Your task to perform on an android device: Search for Mexican restaurants on Maps Image 0: 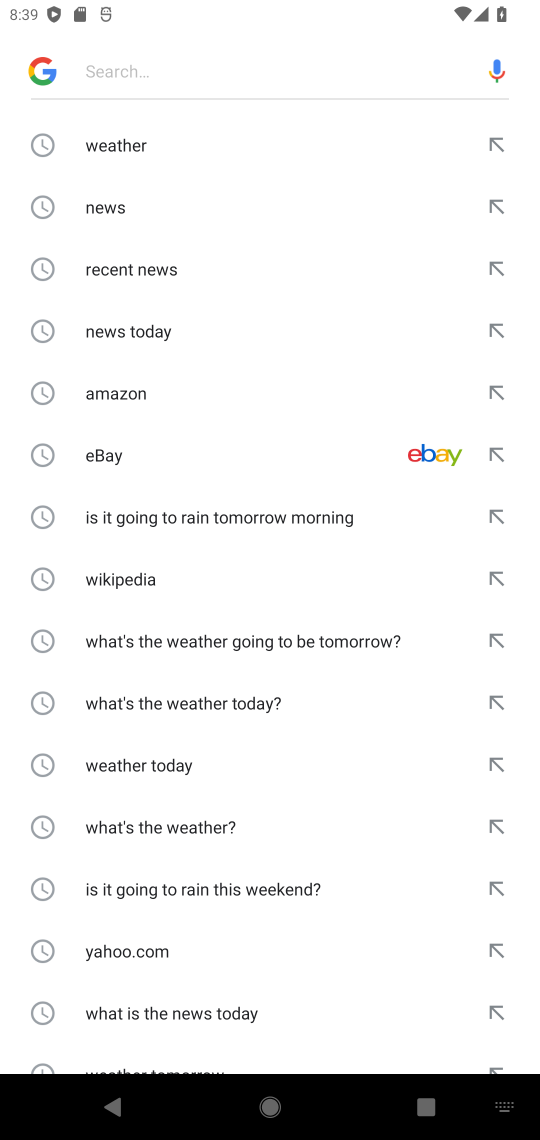
Step 0: press home button
Your task to perform on an android device: Search for Mexican restaurants on Maps Image 1: 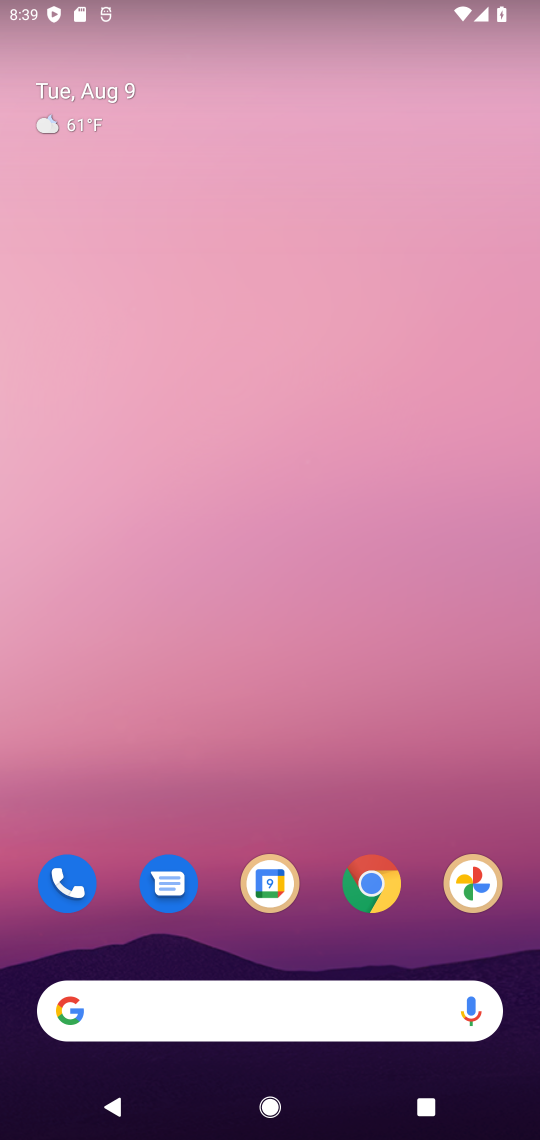
Step 1: drag from (268, 748) to (385, 54)
Your task to perform on an android device: Search for Mexican restaurants on Maps Image 2: 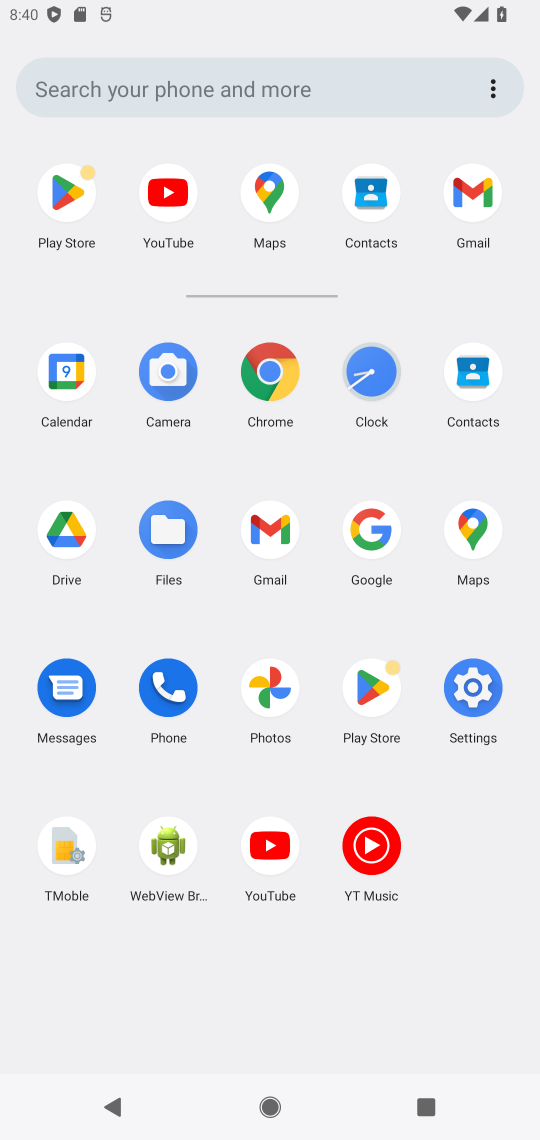
Step 2: drag from (309, 736) to (360, 237)
Your task to perform on an android device: Search for Mexican restaurants on Maps Image 3: 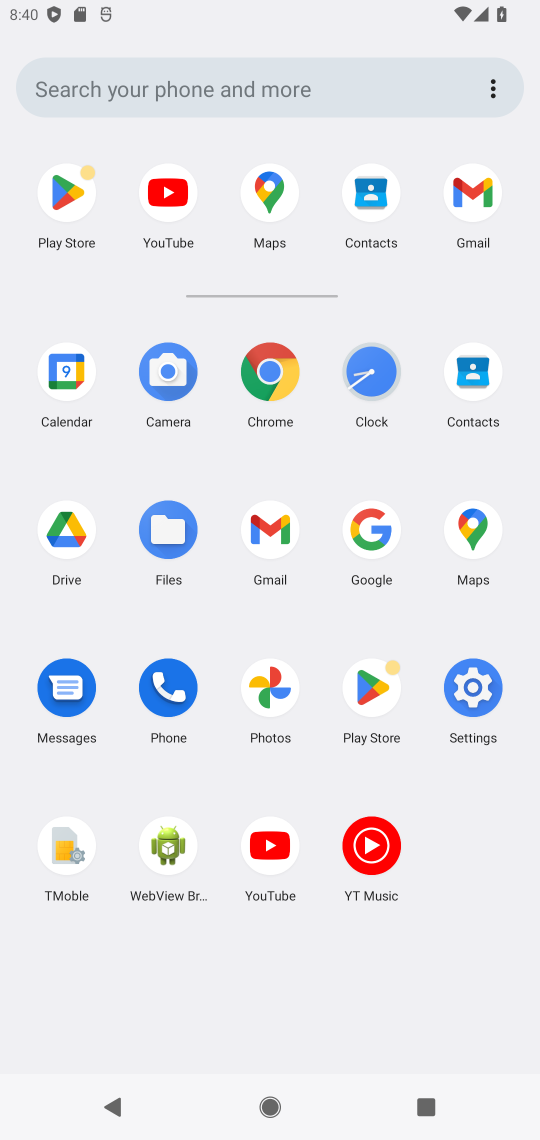
Step 3: click (470, 521)
Your task to perform on an android device: Search for Mexican restaurants on Maps Image 4: 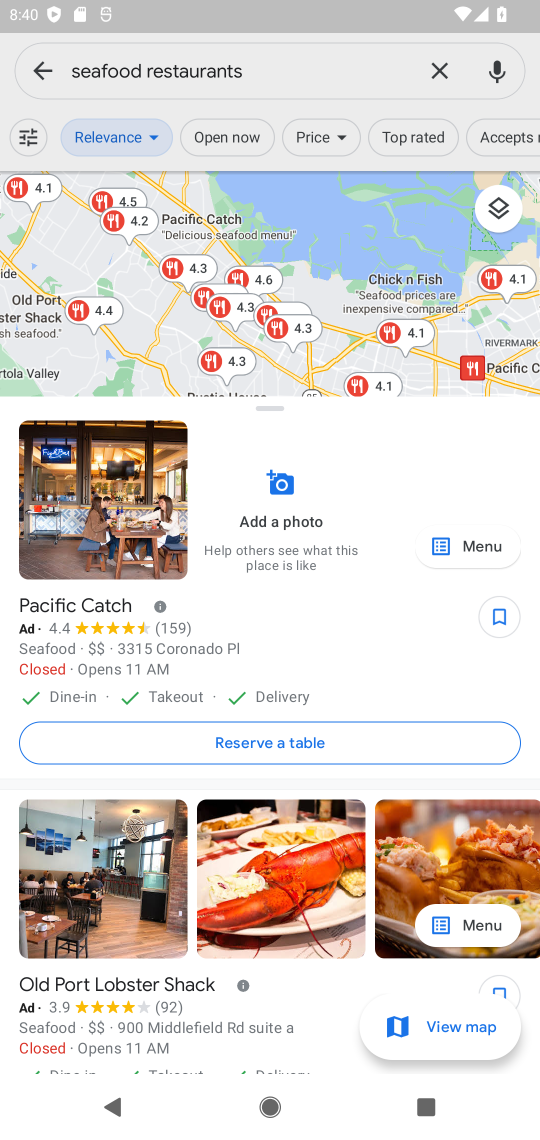
Step 4: click (330, 73)
Your task to perform on an android device: Search for Mexican restaurants on Maps Image 5: 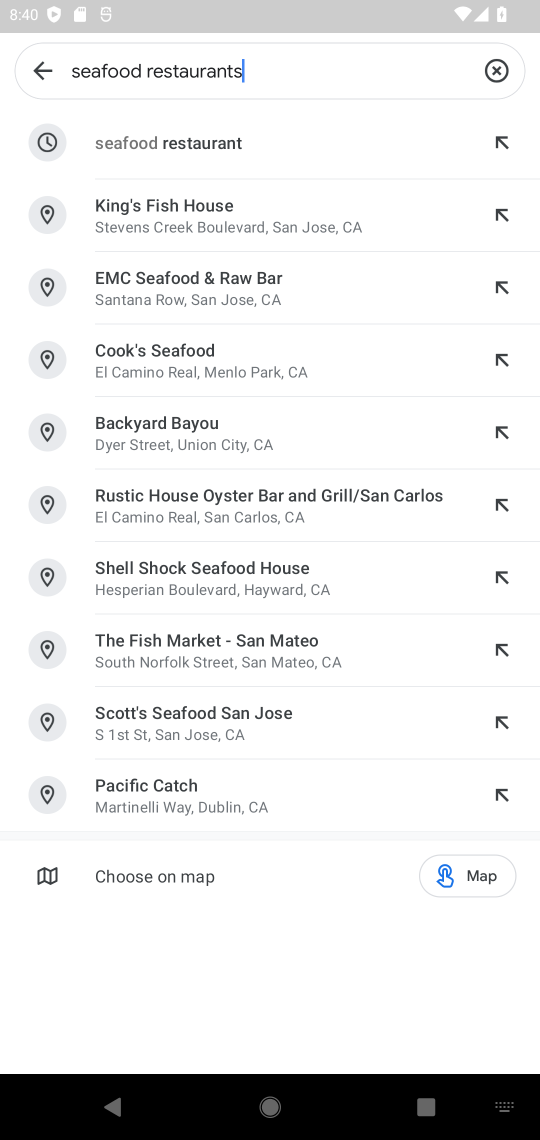
Step 5: click (492, 61)
Your task to perform on an android device: Search for Mexican restaurants on Maps Image 6: 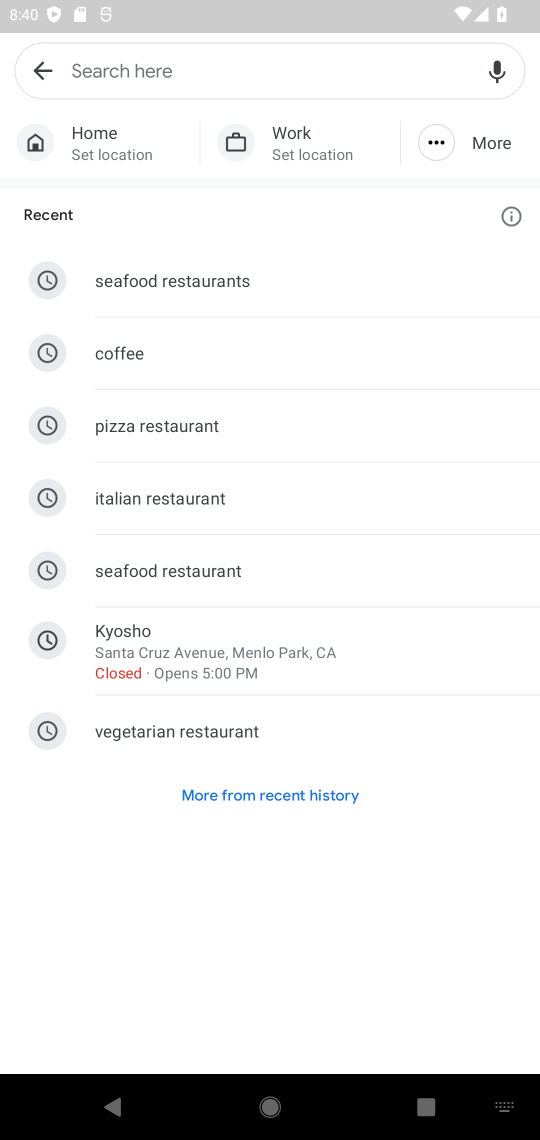
Step 6: type "Mexican restaurants"
Your task to perform on an android device: Search for Mexican restaurants on Maps Image 7: 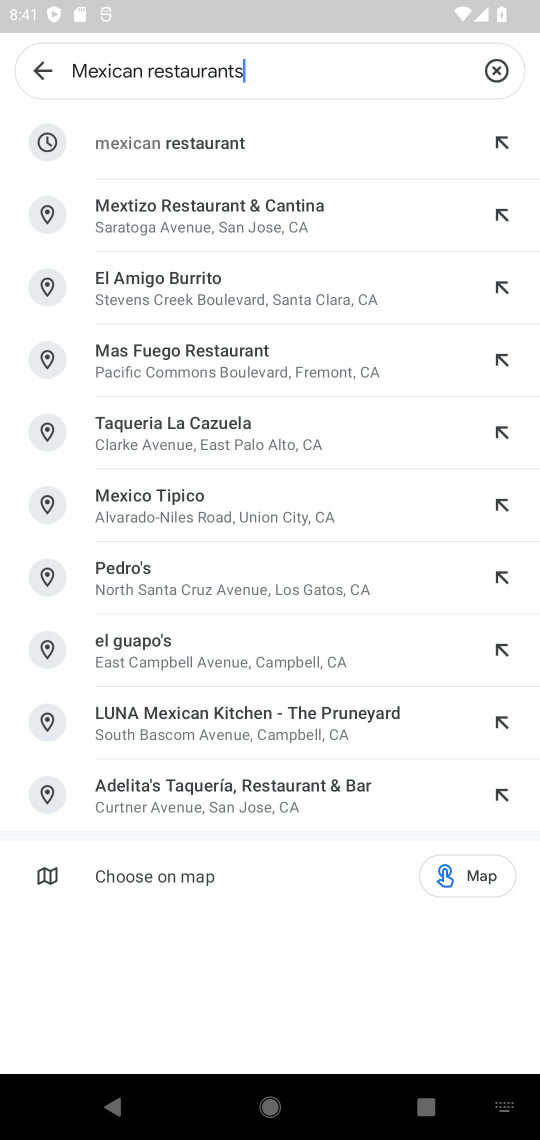
Step 7: press enter
Your task to perform on an android device: Search for Mexican restaurants on Maps Image 8: 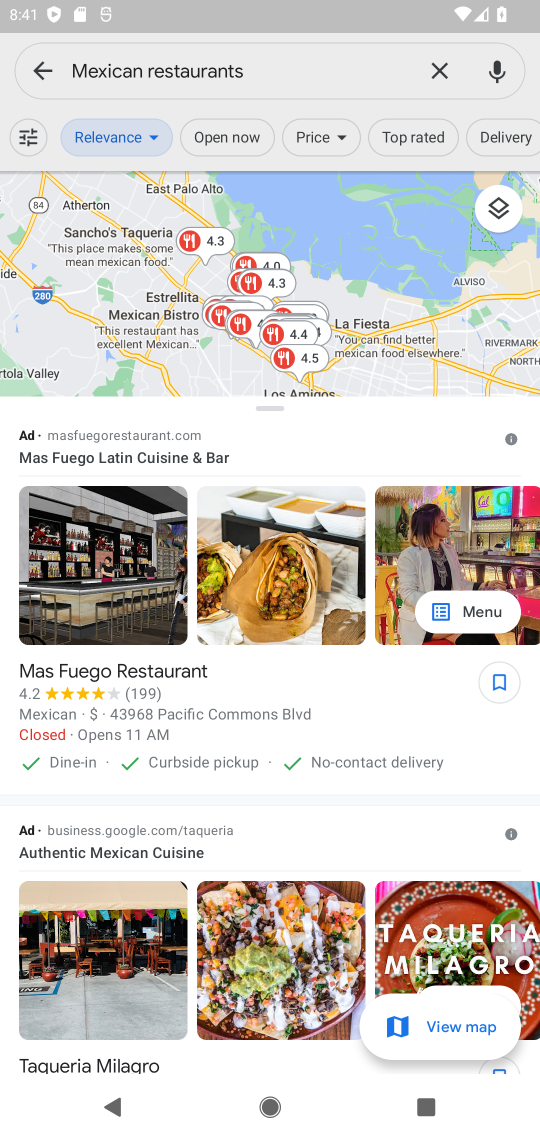
Step 8: task complete